Your task to perform on an android device: Search for hotels in Boston Image 0: 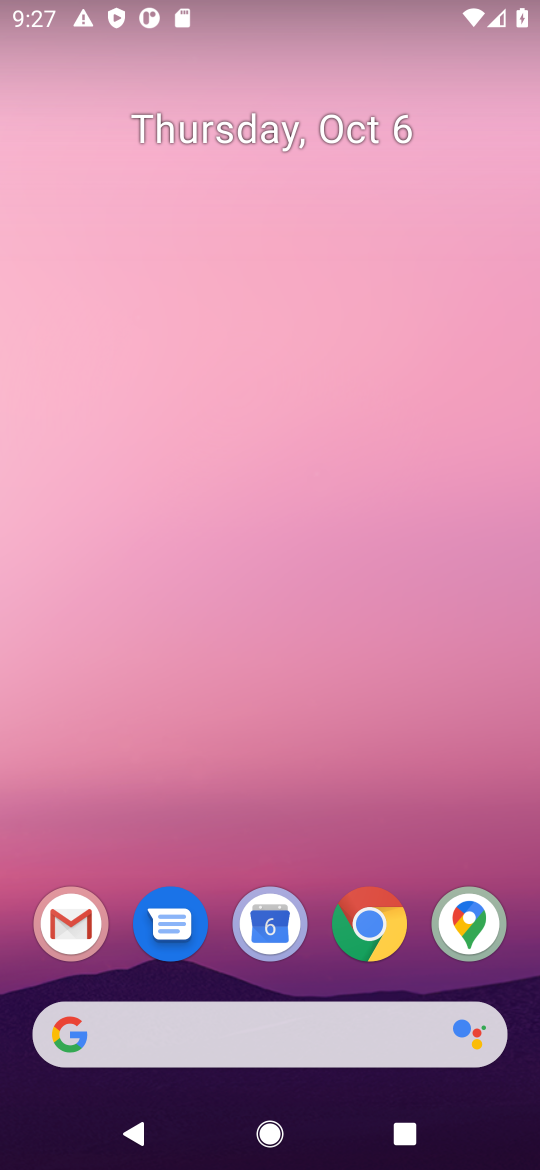
Step 0: click (360, 923)
Your task to perform on an android device: Search for hotels in Boston Image 1: 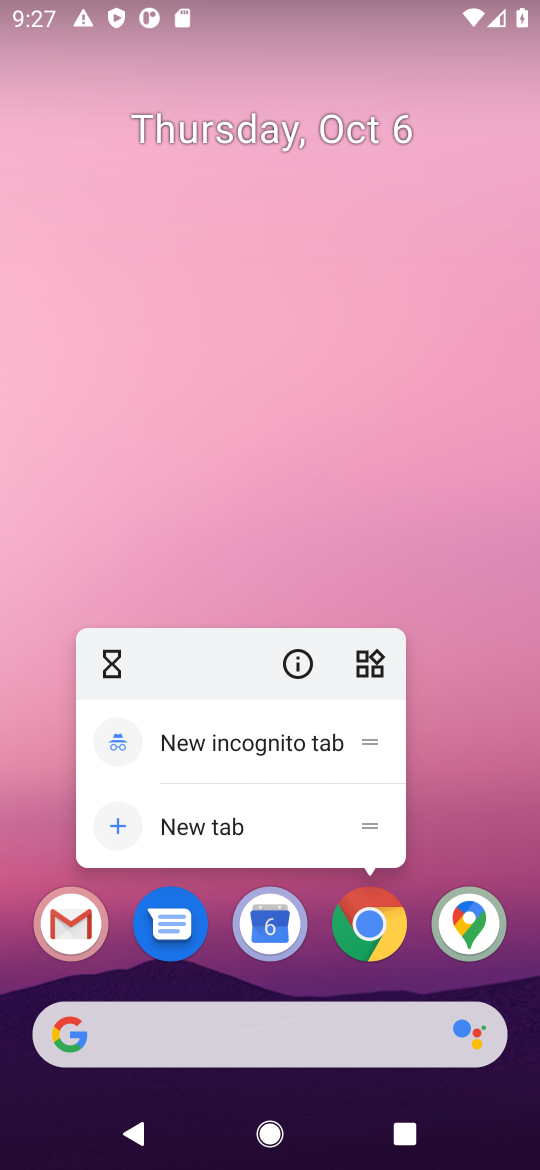
Step 1: click (367, 930)
Your task to perform on an android device: Search for hotels in Boston Image 2: 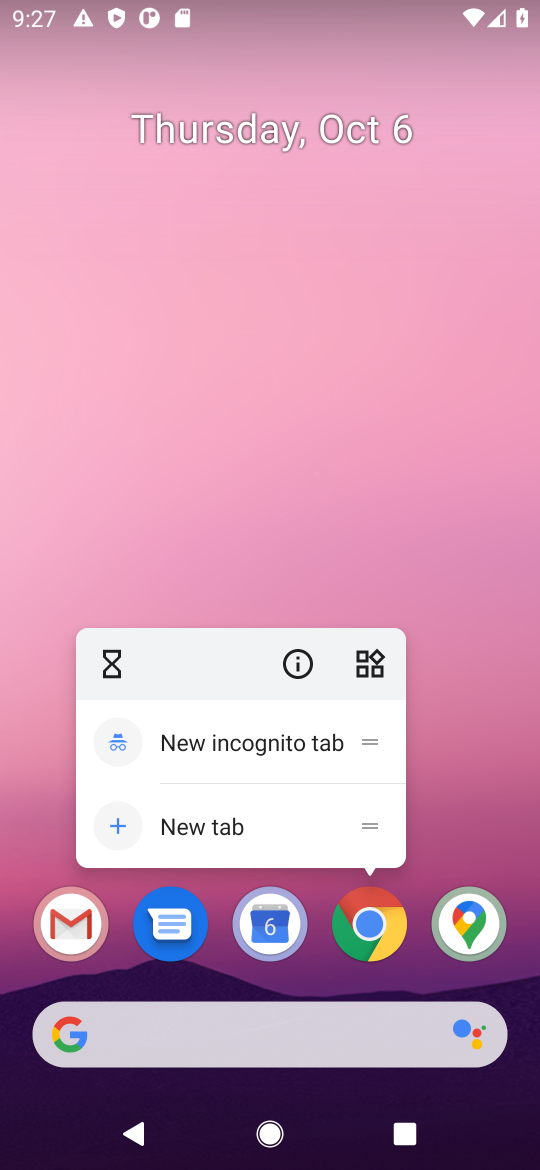
Step 2: click (376, 921)
Your task to perform on an android device: Search for hotels in Boston Image 3: 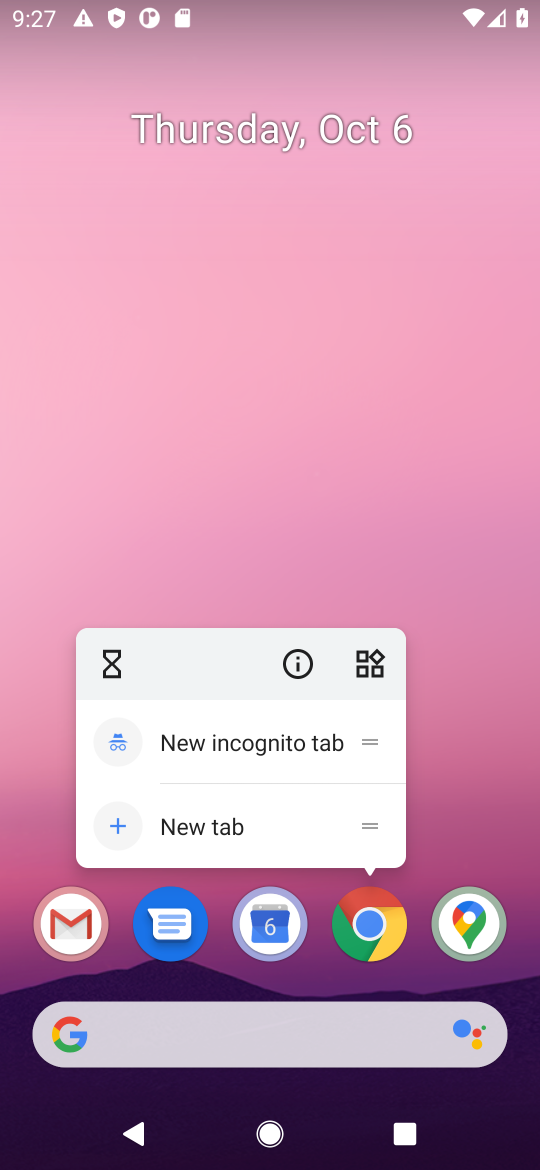
Step 3: click (367, 928)
Your task to perform on an android device: Search for hotels in Boston Image 4: 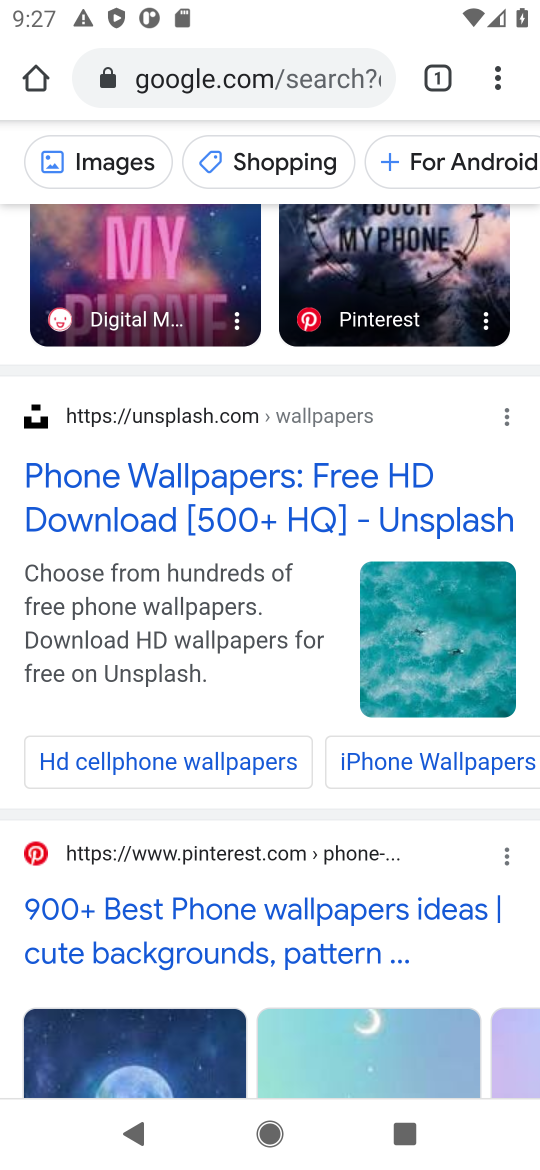
Step 4: click (313, 74)
Your task to perform on an android device: Search for hotels in Boston Image 5: 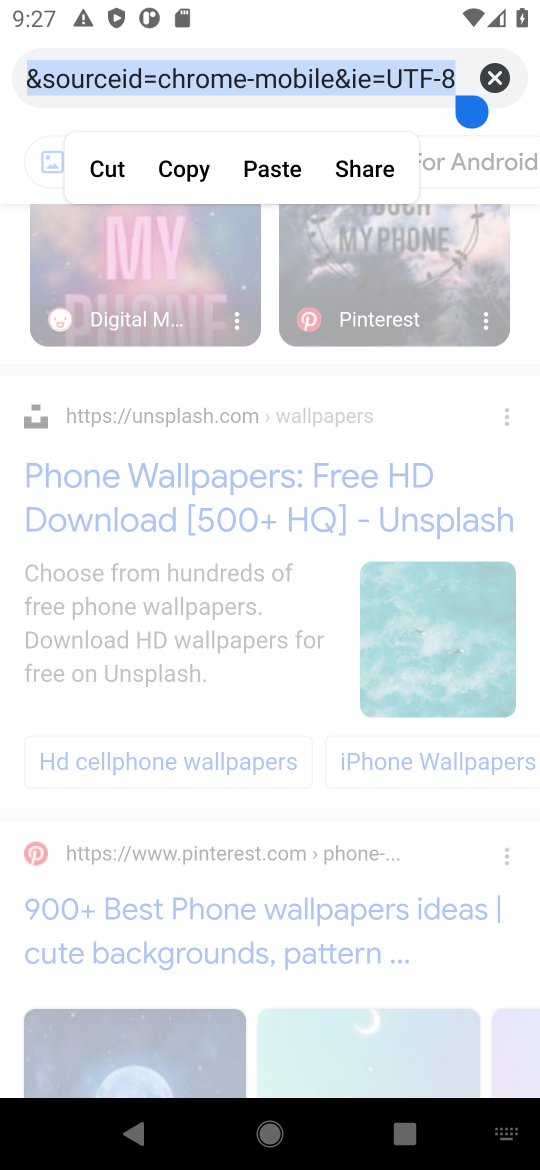
Step 5: click (496, 69)
Your task to perform on an android device: Search for hotels in Boston Image 6: 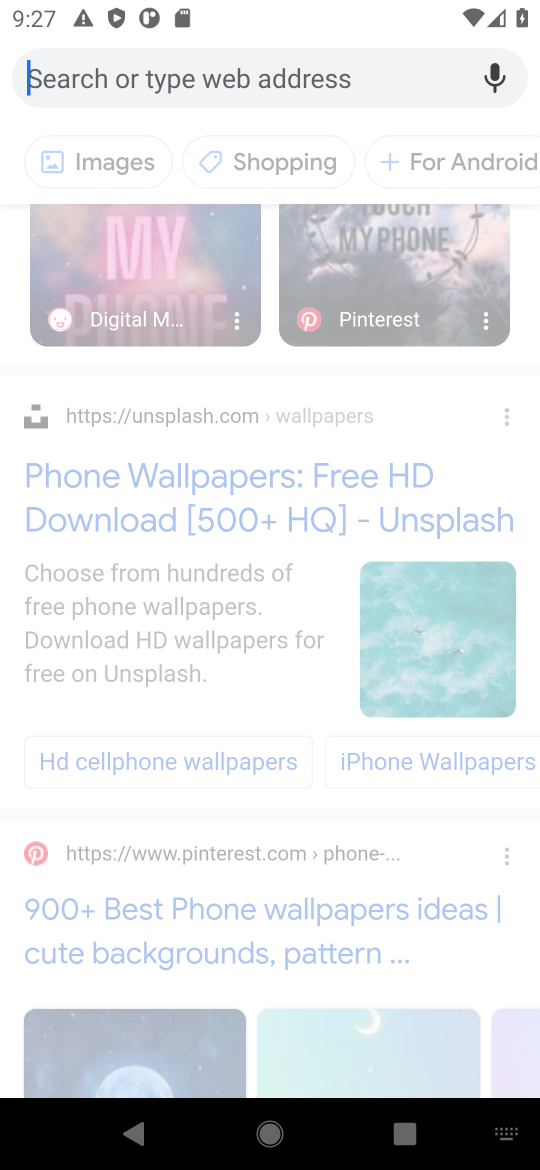
Step 6: type "hotels in Boston"
Your task to perform on an android device: Search for hotels in Boston Image 7: 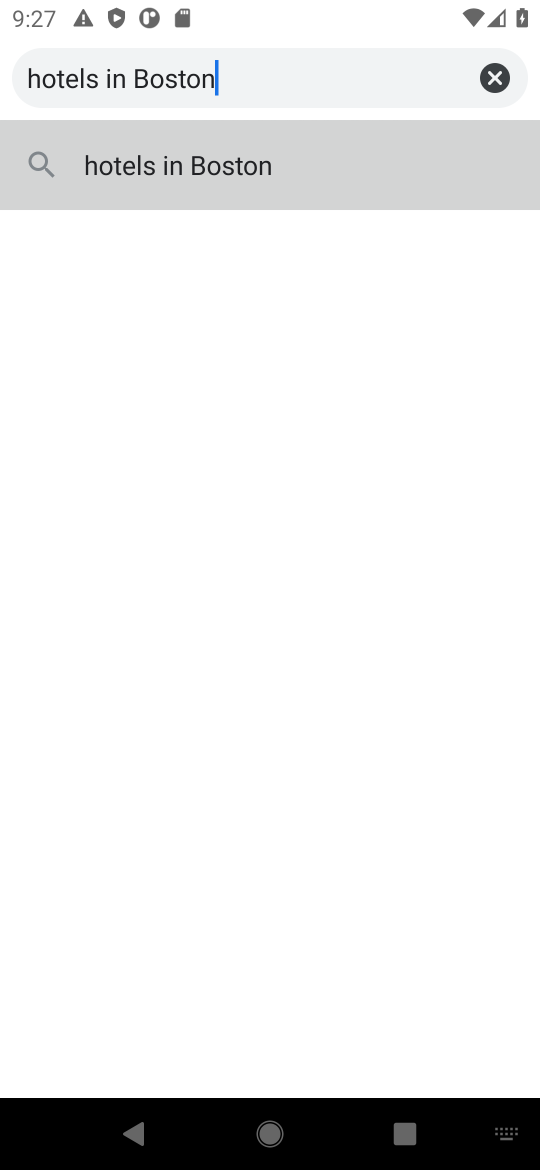
Step 7: click (151, 158)
Your task to perform on an android device: Search for hotels in Boston Image 8: 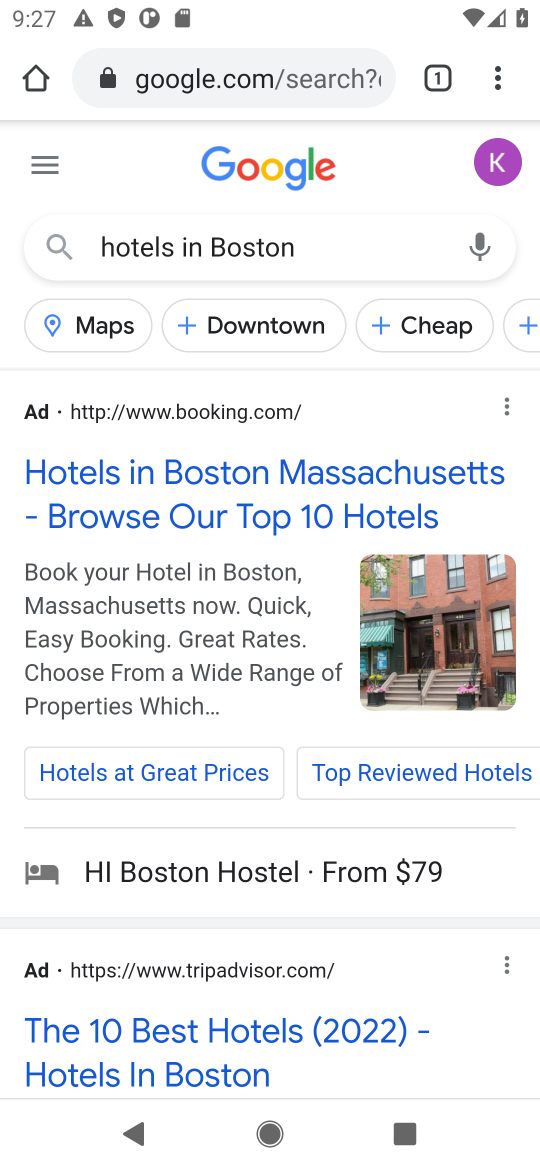
Step 8: click (239, 474)
Your task to perform on an android device: Search for hotels in Boston Image 9: 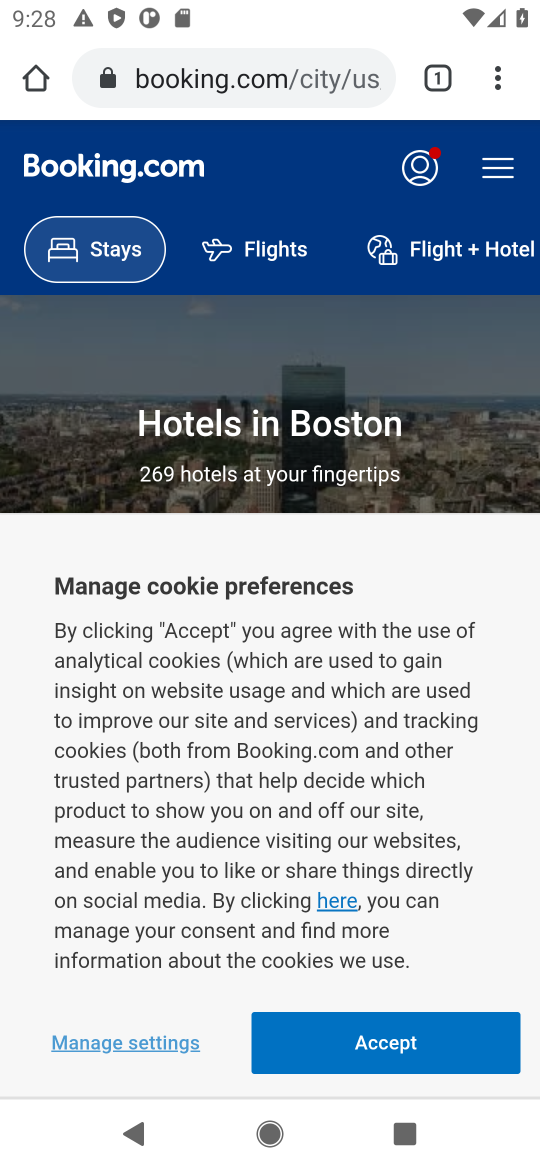
Step 9: click (397, 1044)
Your task to perform on an android device: Search for hotels in Boston Image 10: 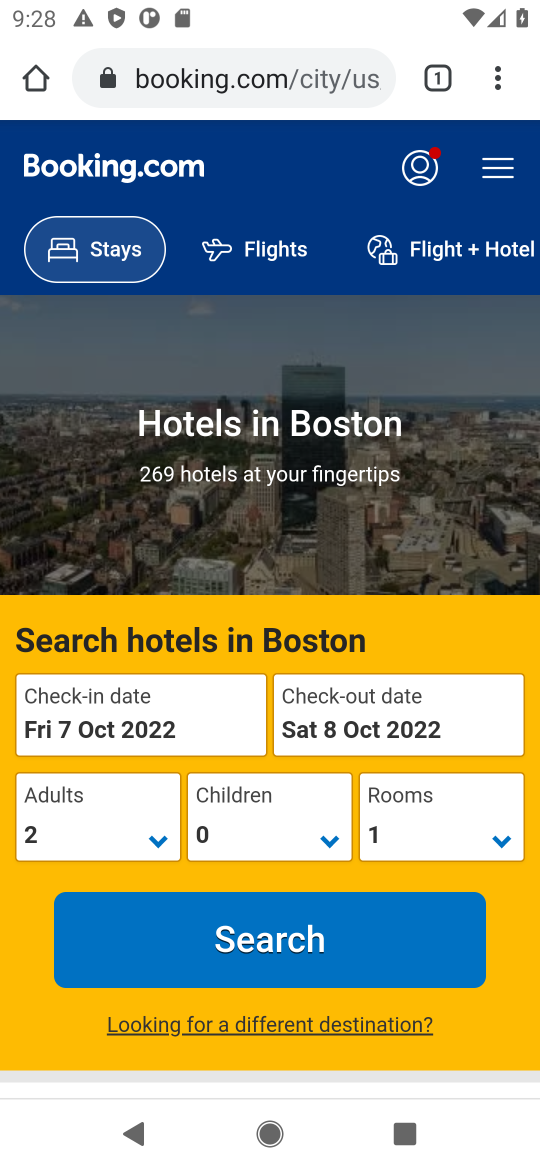
Step 10: task complete